Your task to perform on an android device: Go to calendar. Show me events next week Image 0: 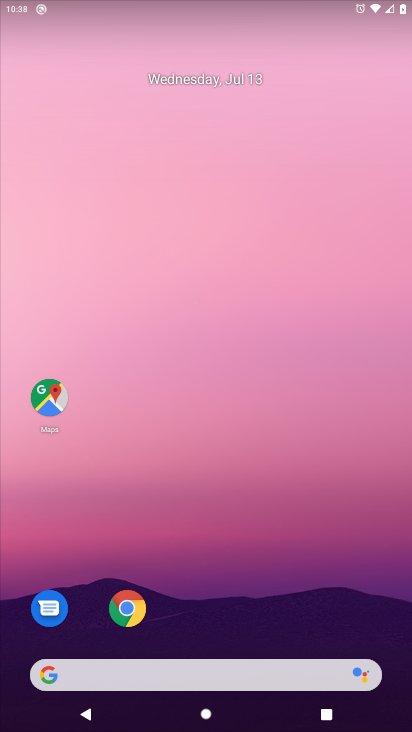
Step 0: click (124, 612)
Your task to perform on an android device: Go to calendar. Show me events next week Image 1: 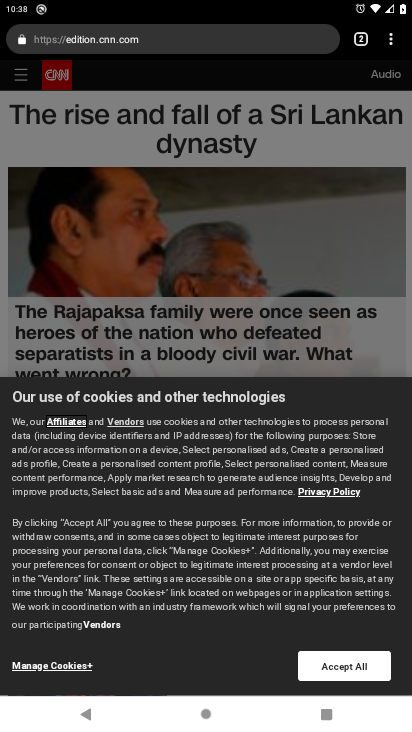
Step 1: press home button
Your task to perform on an android device: Go to calendar. Show me events next week Image 2: 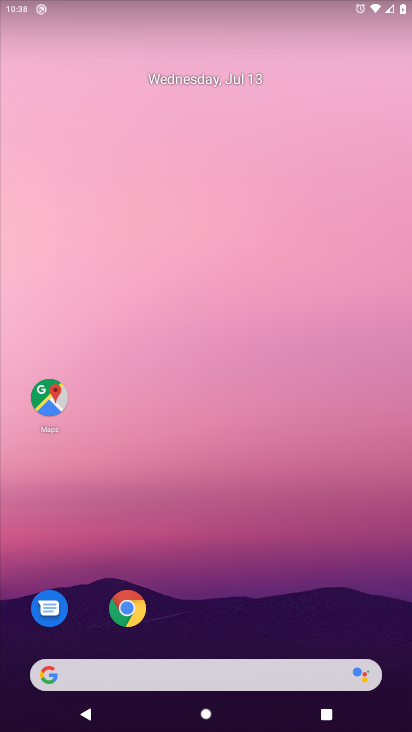
Step 2: drag from (24, 706) to (297, 0)
Your task to perform on an android device: Go to calendar. Show me events next week Image 3: 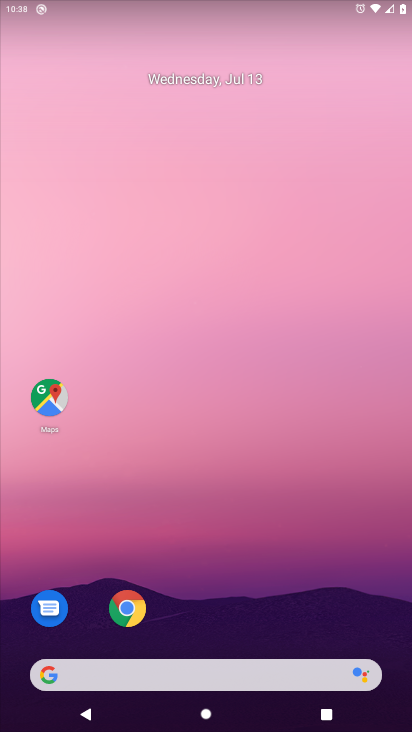
Step 3: drag from (127, 378) to (312, 21)
Your task to perform on an android device: Go to calendar. Show me events next week Image 4: 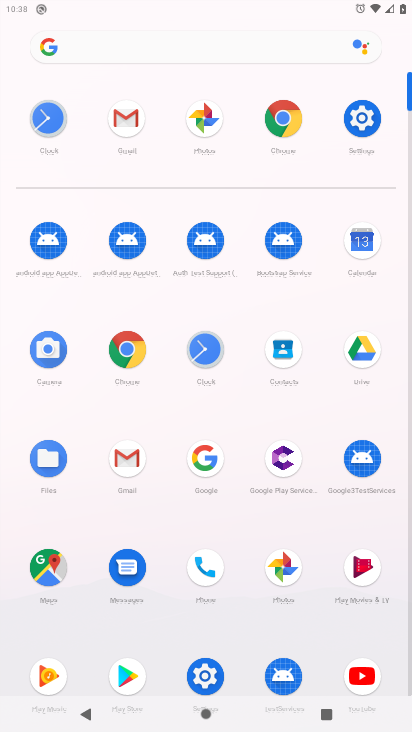
Step 4: click (349, 246)
Your task to perform on an android device: Go to calendar. Show me events next week Image 5: 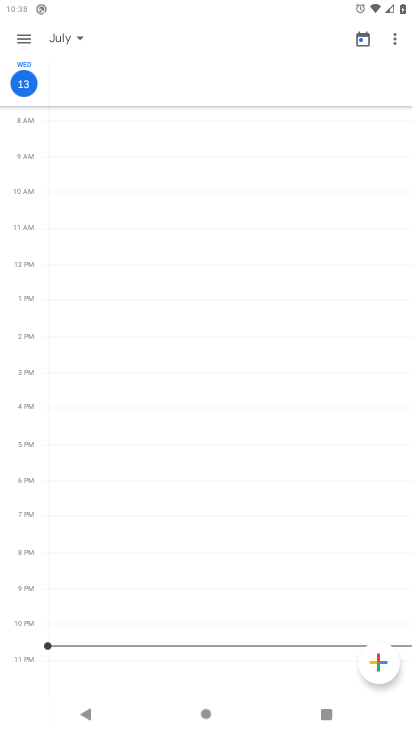
Step 5: click (67, 44)
Your task to perform on an android device: Go to calendar. Show me events next week Image 6: 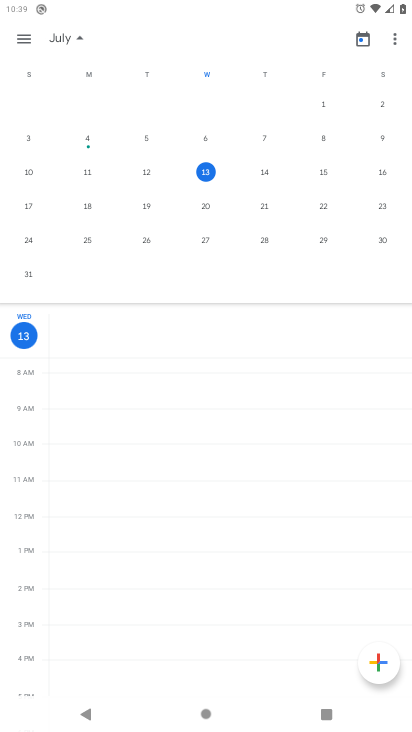
Step 6: task complete